Your task to perform on an android device: Show me popular games on the Play Store Image 0: 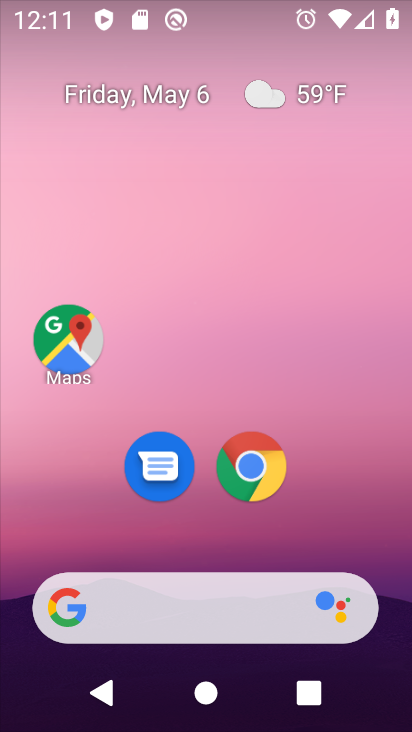
Step 0: drag from (213, 533) to (250, 160)
Your task to perform on an android device: Show me popular games on the Play Store Image 1: 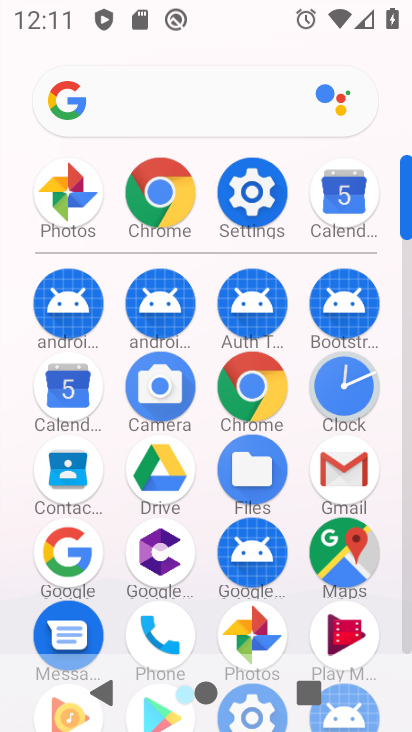
Step 1: drag from (195, 653) to (189, 469)
Your task to perform on an android device: Show me popular games on the Play Store Image 2: 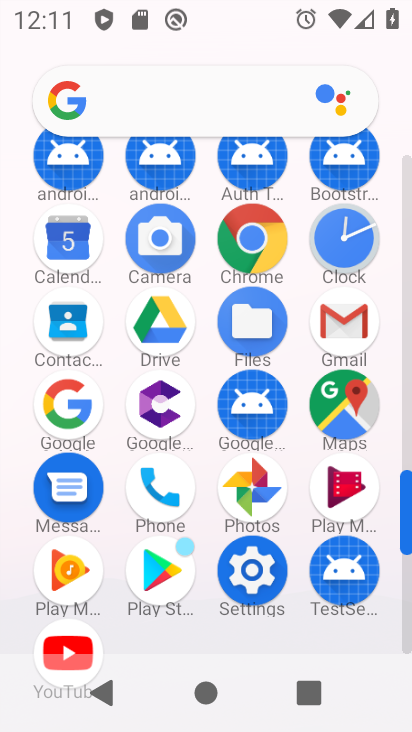
Step 2: click (153, 582)
Your task to perform on an android device: Show me popular games on the Play Store Image 3: 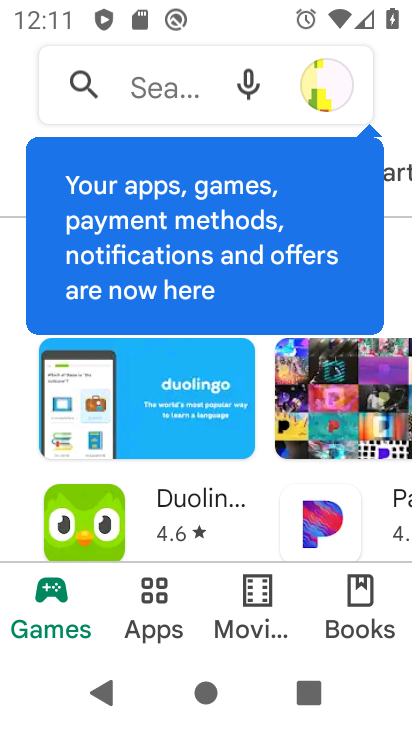
Step 3: click (161, 619)
Your task to perform on an android device: Show me popular games on the Play Store Image 4: 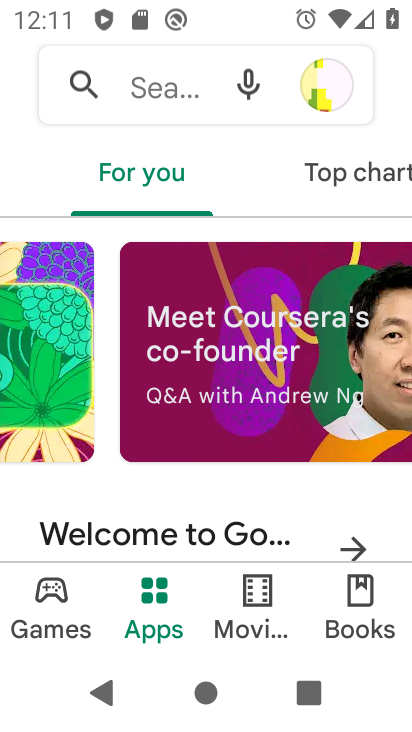
Step 4: click (177, 86)
Your task to perform on an android device: Show me popular games on the Play Store Image 5: 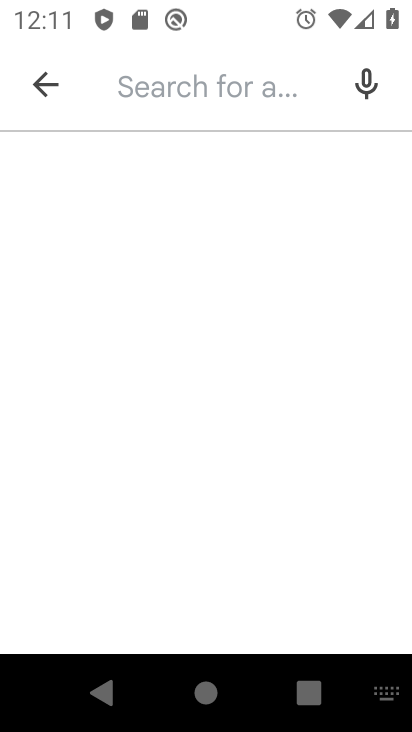
Step 5: type "popular games"
Your task to perform on an android device: Show me popular games on the Play Store Image 6: 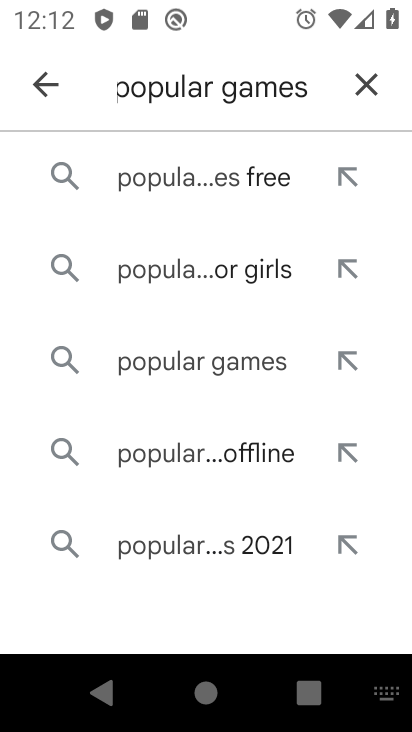
Step 6: click (200, 366)
Your task to perform on an android device: Show me popular games on the Play Store Image 7: 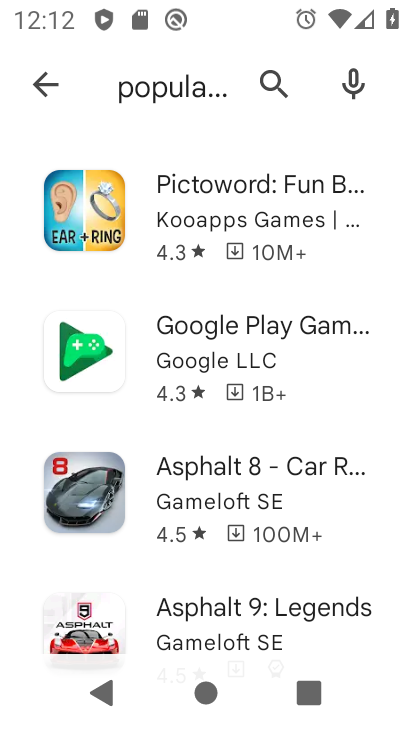
Step 7: task complete